Your task to perform on an android device: Open the calendar app, open the side menu, and click the "Day" option Image 0: 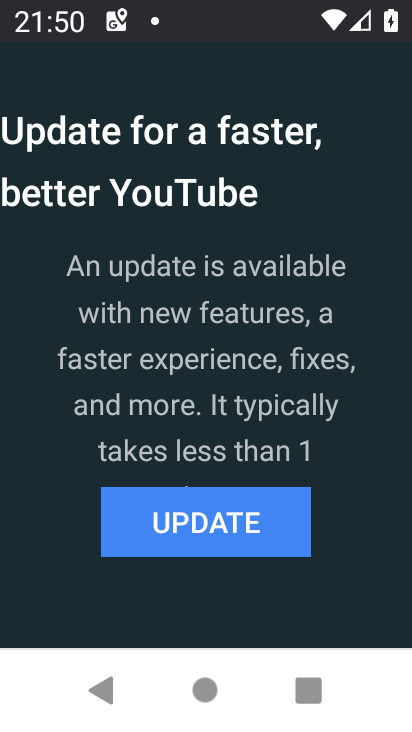
Step 0: press home button
Your task to perform on an android device: Open the calendar app, open the side menu, and click the "Day" option Image 1: 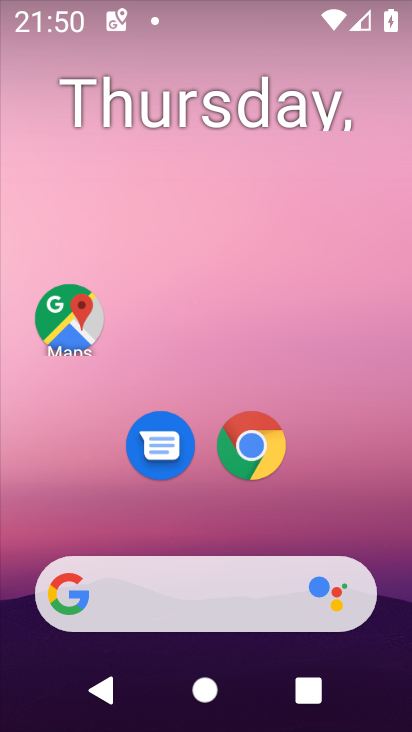
Step 1: press home button
Your task to perform on an android device: Open the calendar app, open the side menu, and click the "Day" option Image 2: 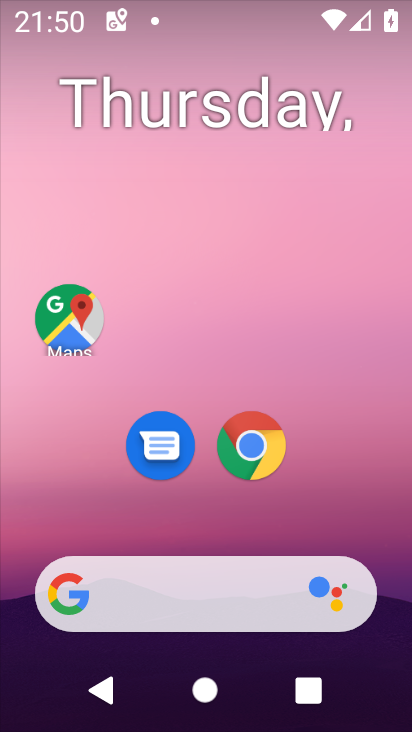
Step 2: drag from (47, 460) to (186, 113)
Your task to perform on an android device: Open the calendar app, open the side menu, and click the "Day" option Image 3: 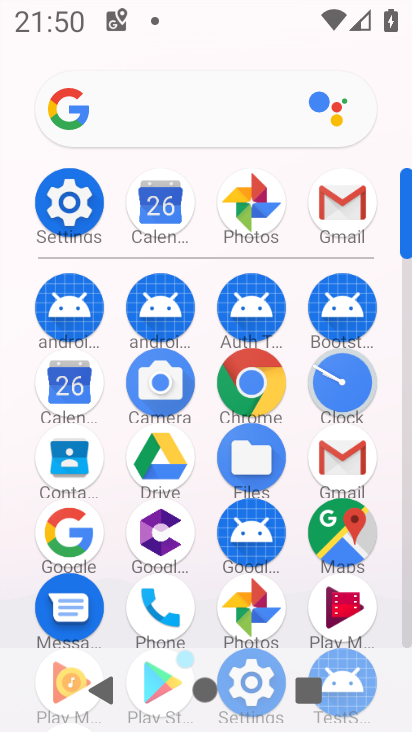
Step 3: click (68, 390)
Your task to perform on an android device: Open the calendar app, open the side menu, and click the "Day" option Image 4: 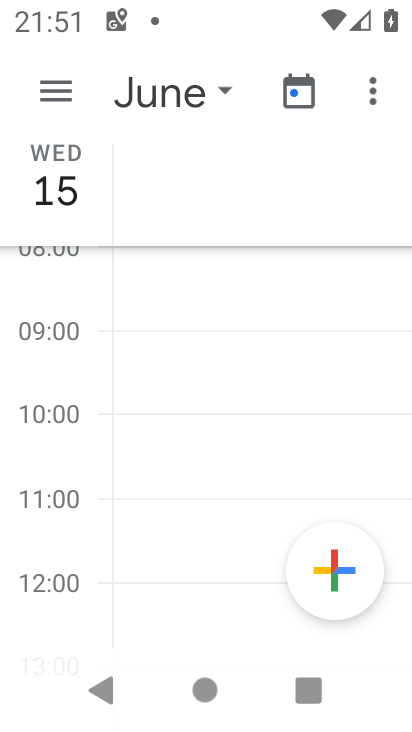
Step 4: click (59, 89)
Your task to perform on an android device: Open the calendar app, open the side menu, and click the "Day" option Image 5: 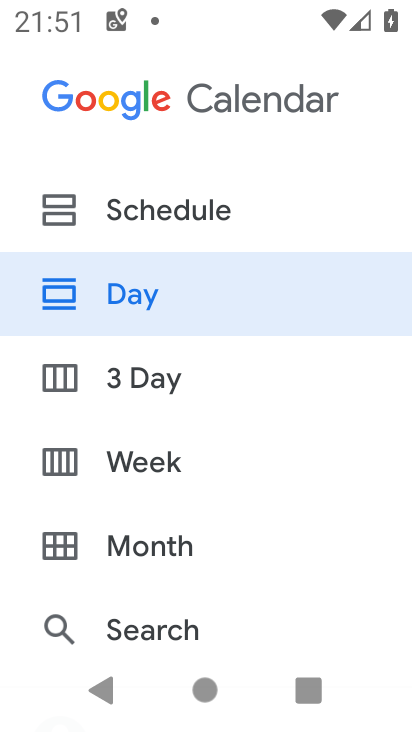
Step 5: click (134, 291)
Your task to perform on an android device: Open the calendar app, open the side menu, and click the "Day" option Image 6: 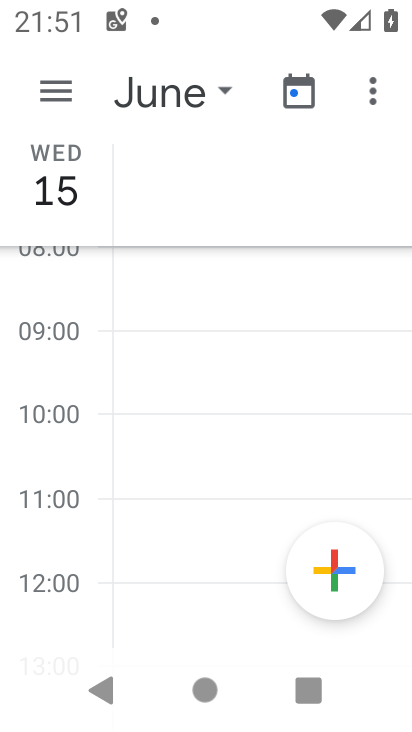
Step 6: task complete